Your task to perform on an android device: turn on data saver in the chrome app Image 0: 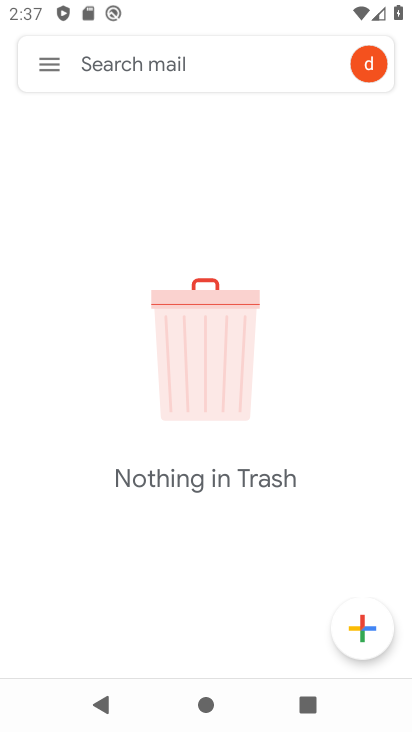
Step 0: press home button
Your task to perform on an android device: turn on data saver in the chrome app Image 1: 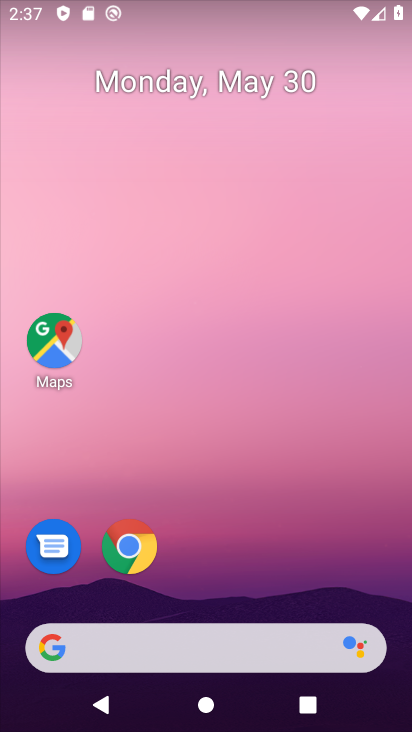
Step 1: drag from (235, 423) to (163, 36)
Your task to perform on an android device: turn on data saver in the chrome app Image 2: 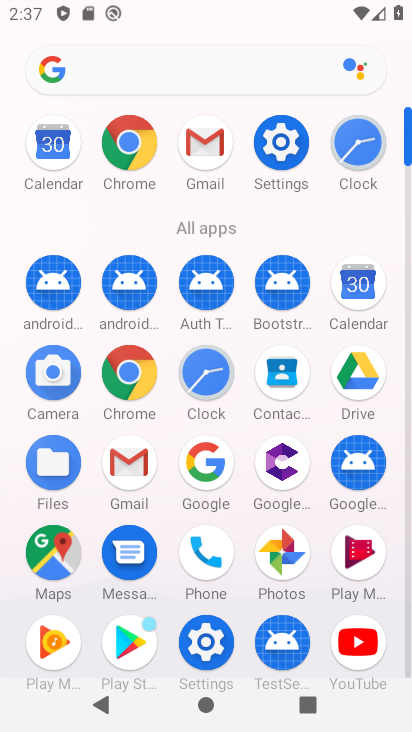
Step 2: click (118, 366)
Your task to perform on an android device: turn on data saver in the chrome app Image 3: 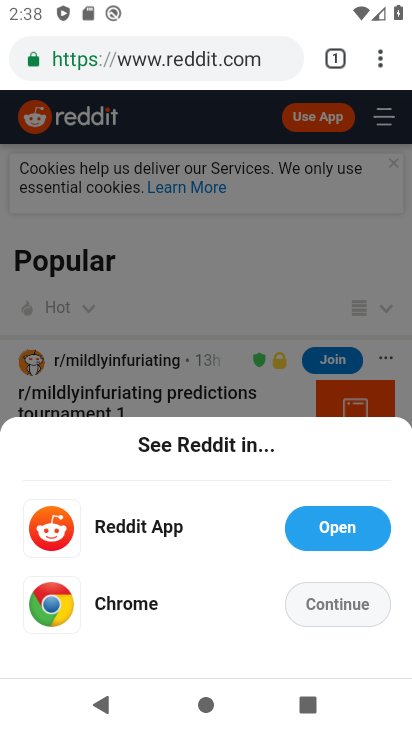
Step 3: click (379, 57)
Your task to perform on an android device: turn on data saver in the chrome app Image 4: 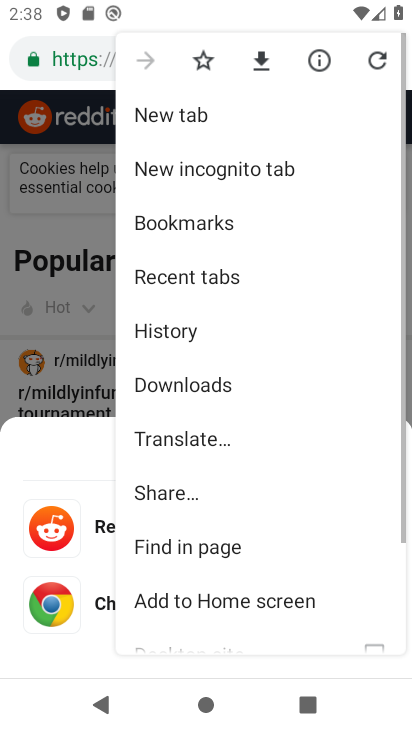
Step 4: drag from (260, 528) to (261, 198)
Your task to perform on an android device: turn on data saver in the chrome app Image 5: 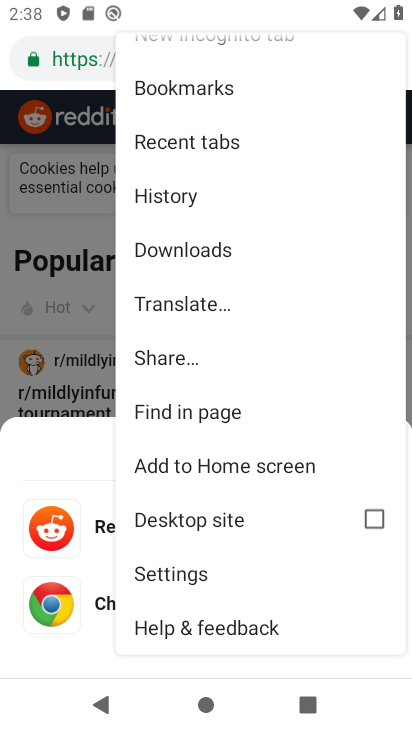
Step 5: click (190, 575)
Your task to perform on an android device: turn on data saver in the chrome app Image 6: 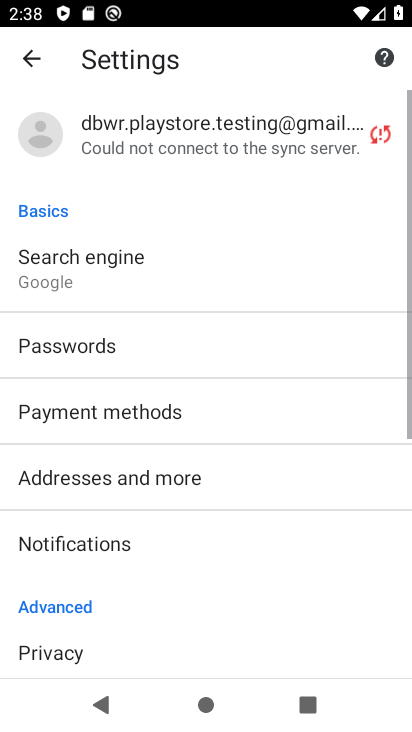
Step 6: drag from (187, 559) to (94, 25)
Your task to perform on an android device: turn on data saver in the chrome app Image 7: 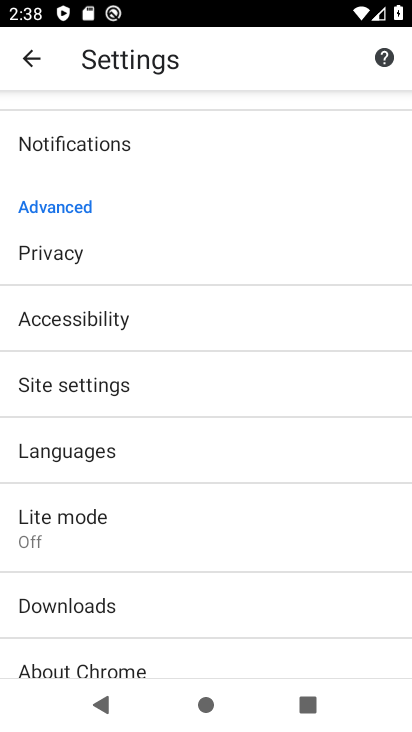
Step 7: click (100, 515)
Your task to perform on an android device: turn on data saver in the chrome app Image 8: 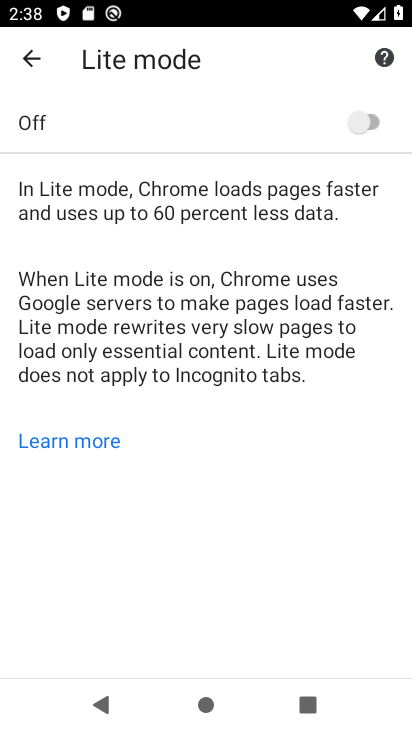
Step 8: click (378, 115)
Your task to perform on an android device: turn on data saver in the chrome app Image 9: 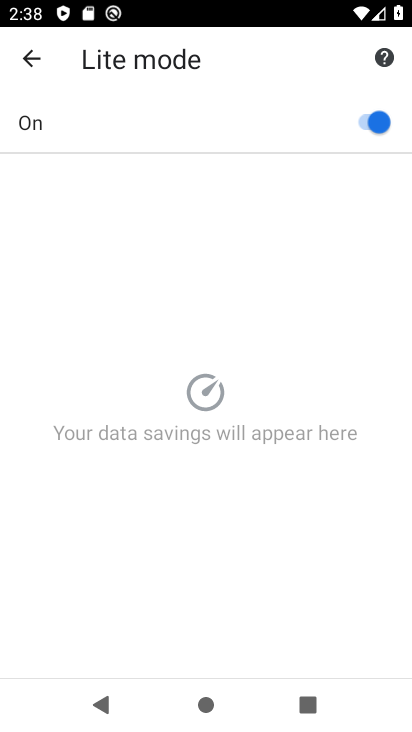
Step 9: task complete